Your task to perform on an android device: Go to display settings Image 0: 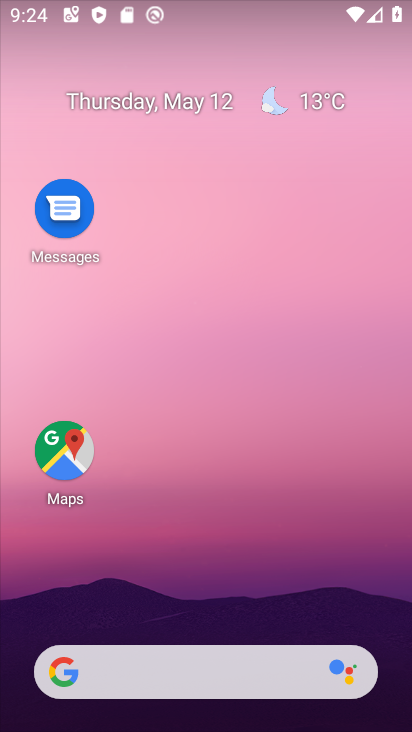
Step 0: drag from (217, 631) to (115, 15)
Your task to perform on an android device: Go to display settings Image 1: 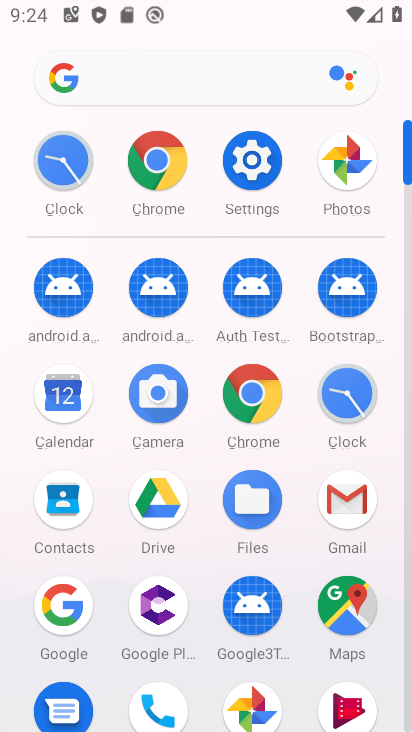
Step 1: click (252, 168)
Your task to perform on an android device: Go to display settings Image 2: 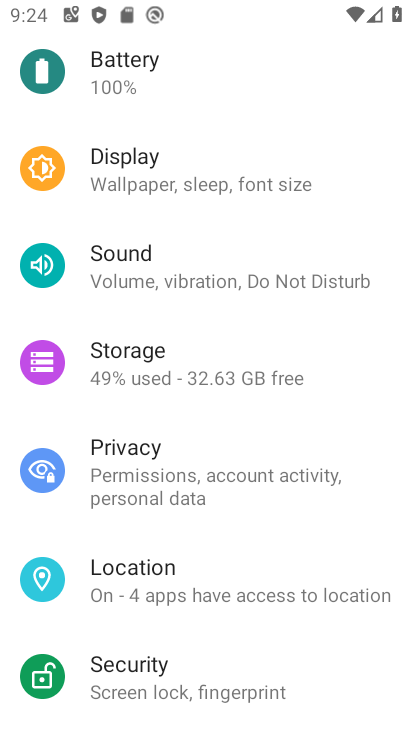
Step 2: click (148, 158)
Your task to perform on an android device: Go to display settings Image 3: 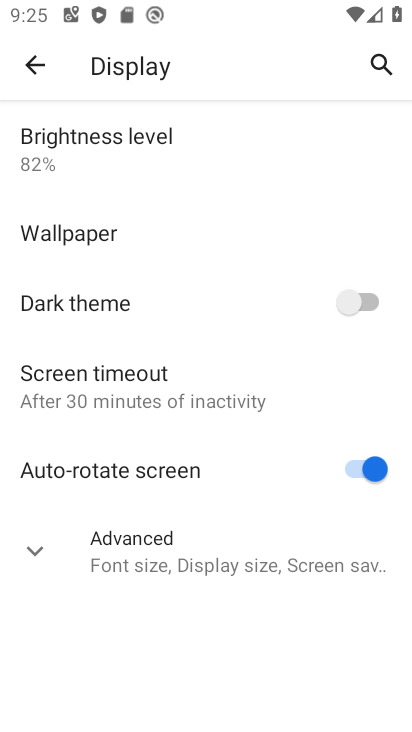
Step 3: task complete